Your task to perform on an android device: change the clock display to analog Image 0: 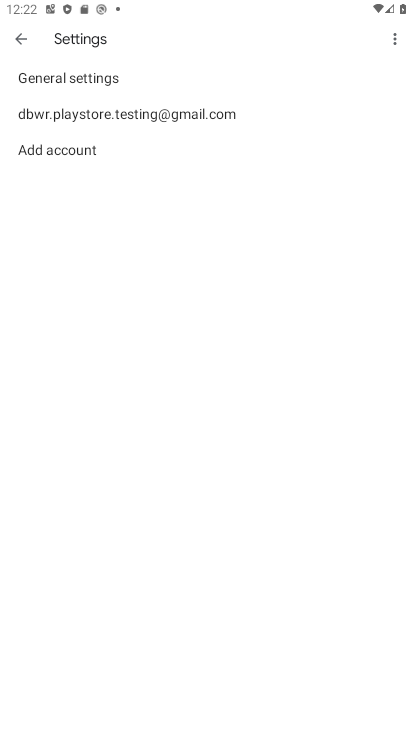
Step 0: press home button
Your task to perform on an android device: change the clock display to analog Image 1: 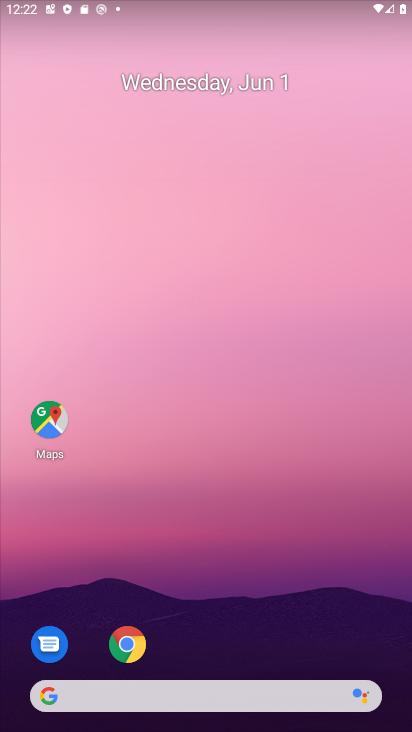
Step 1: drag from (300, 626) to (303, 158)
Your task to perform on an android device: change the clock display to analog Image 2: 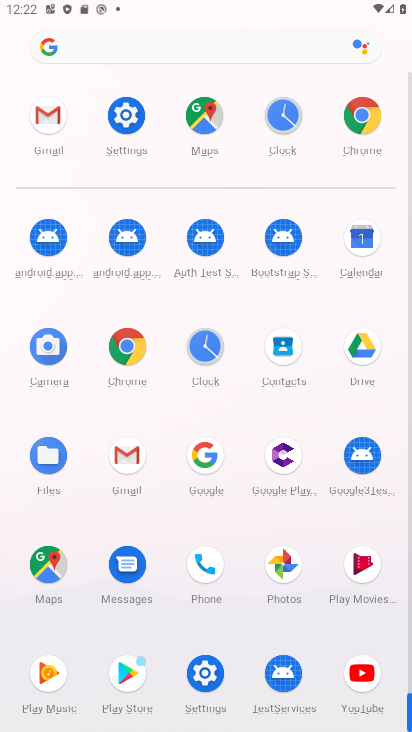
Step 2: click (126, 114)
Your task to perform on an android device: change the clock display to analog Image 3: 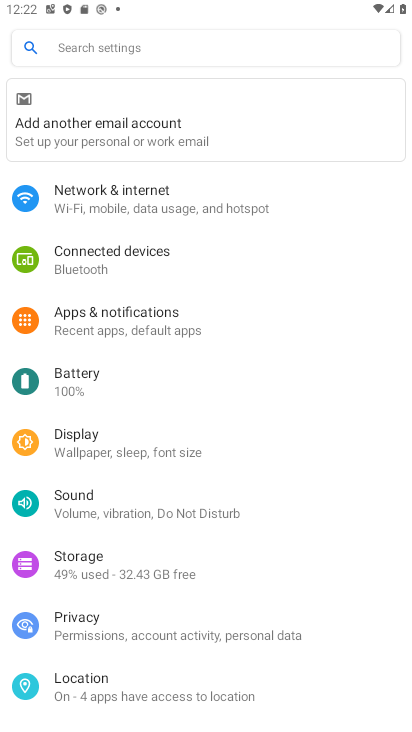
Step 3: press home button
Your task to perform on an android device: change the clock display to analog Image 4: 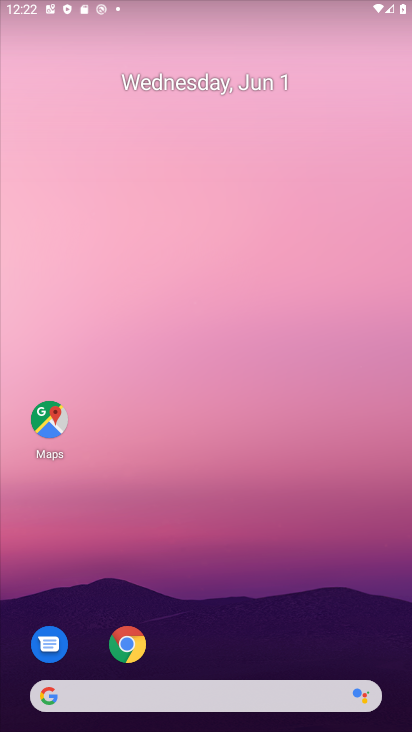
Step 4: drag from (372, 570) to (342, 193)
Your task to perform on an android device: change the clock display to analog Image 5: 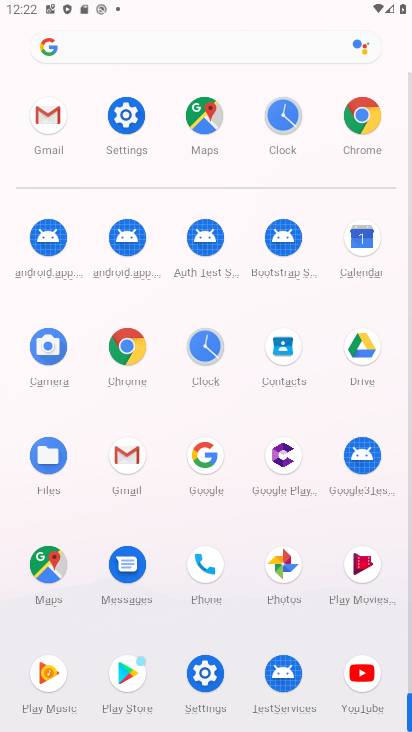
Step 5: click (211, 348)
Your task to perform on an android device: change the clock display to analog Image 6: 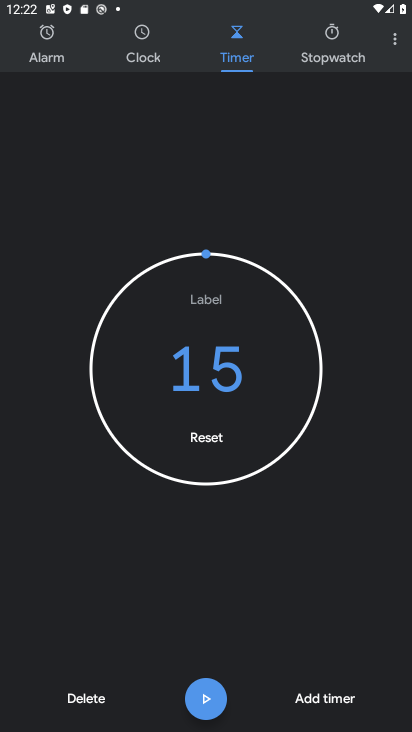
Step 6: task complete